Your task to perform on an android device: Turn on the flashlight Image 0: 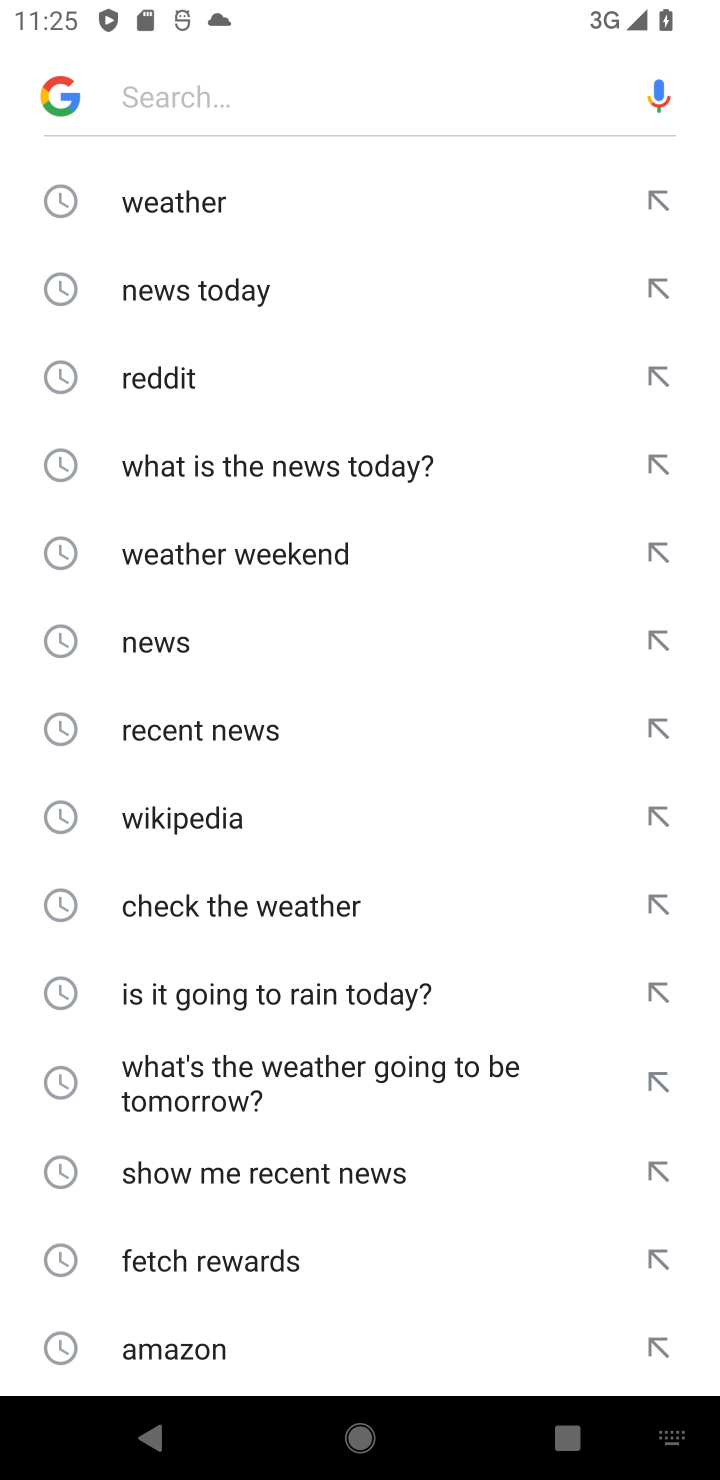
Step 0: press home button
Your task to perform on an android device: Turn on the flashlight Image 1: 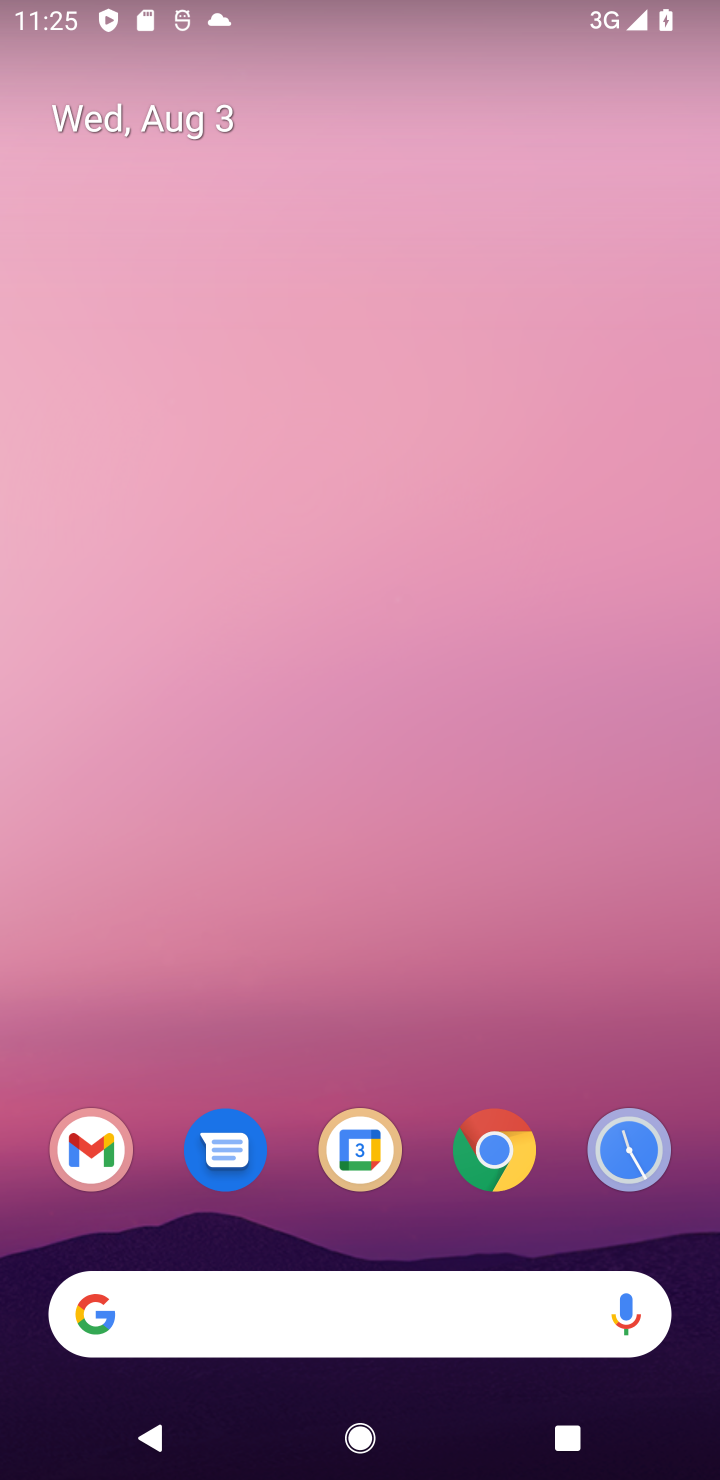
Step 1: drag from (350, 9) to (359, 719)
Your task to perform on an android device: Turn on the flashlight Image 2: 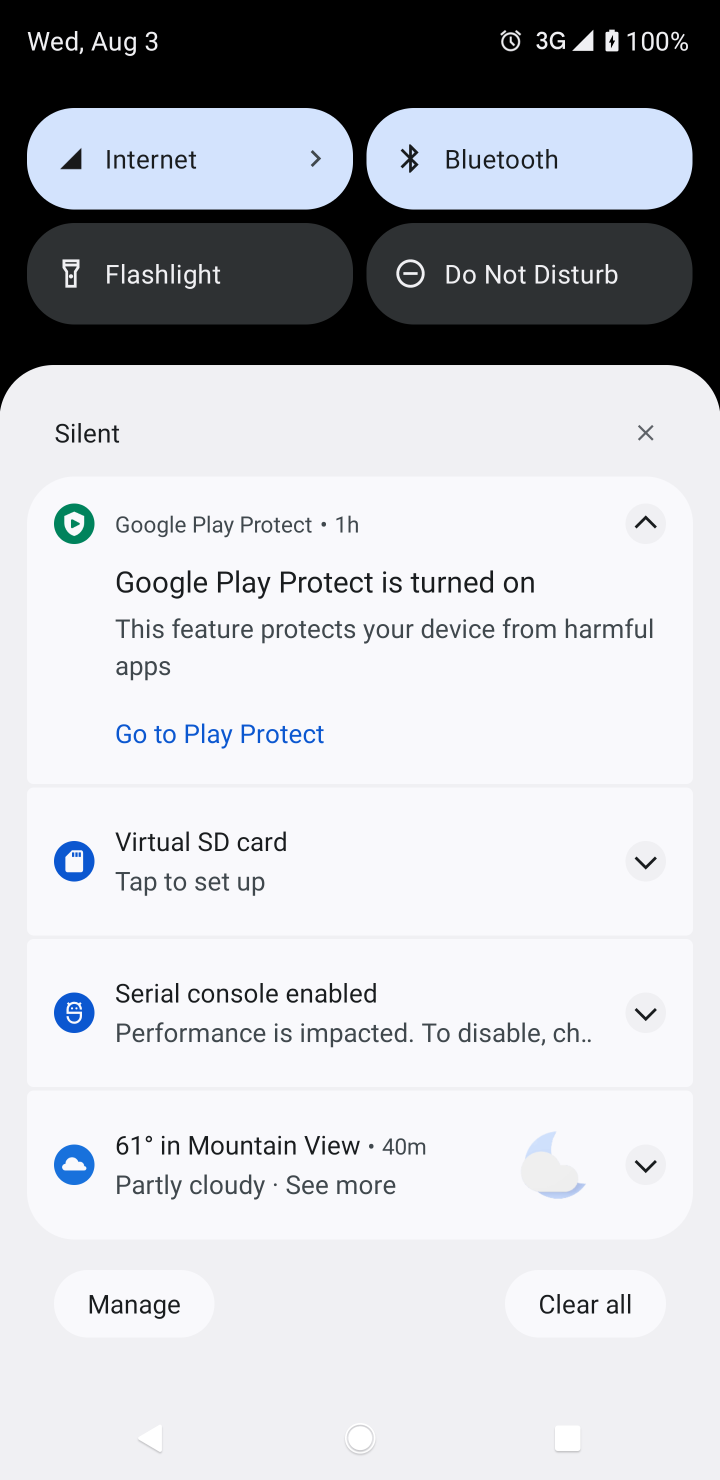
Step 2: drag from (332, 77) to (354, 834)
Your task to perform on an android device: Turn on the flashlight Image 3: 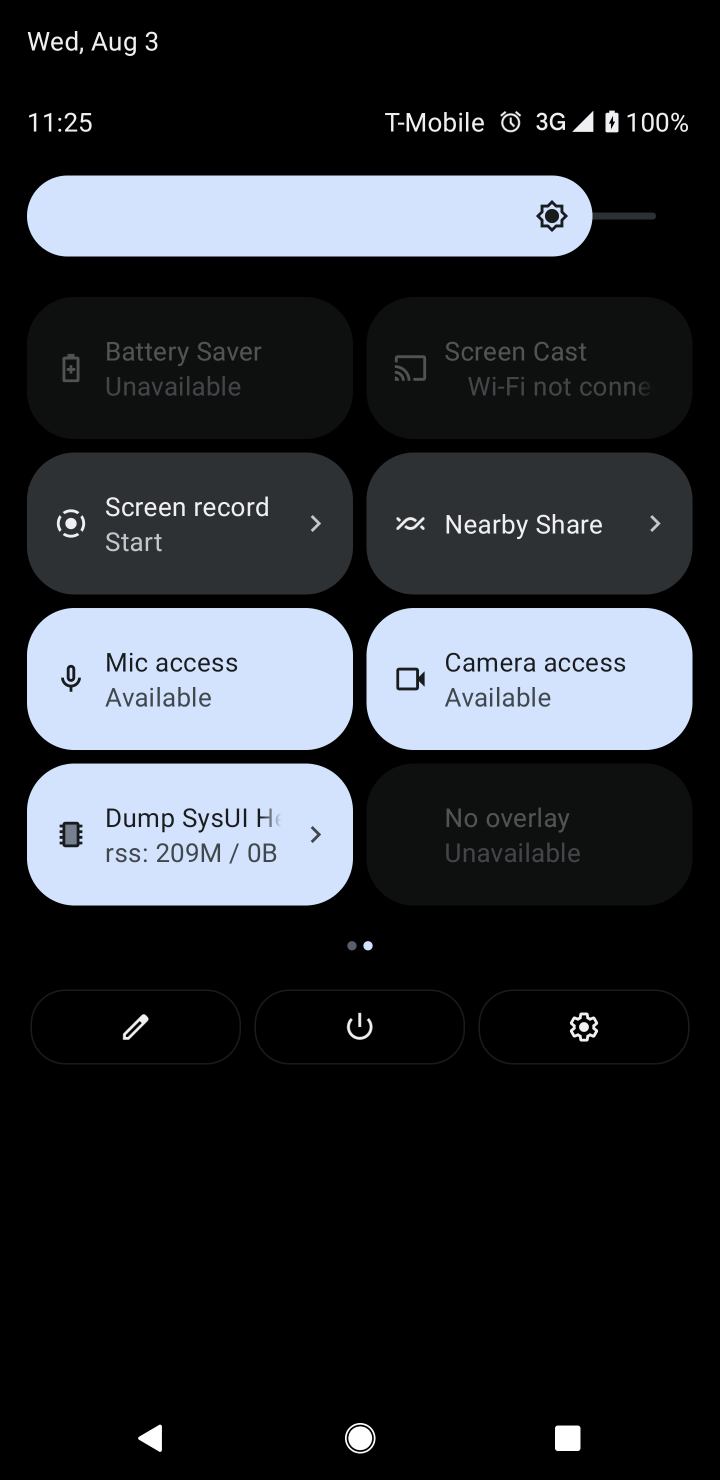
Step 3: click (130, 1023)
Your task to perform on an android device: Turn on the flashlight Image 4: 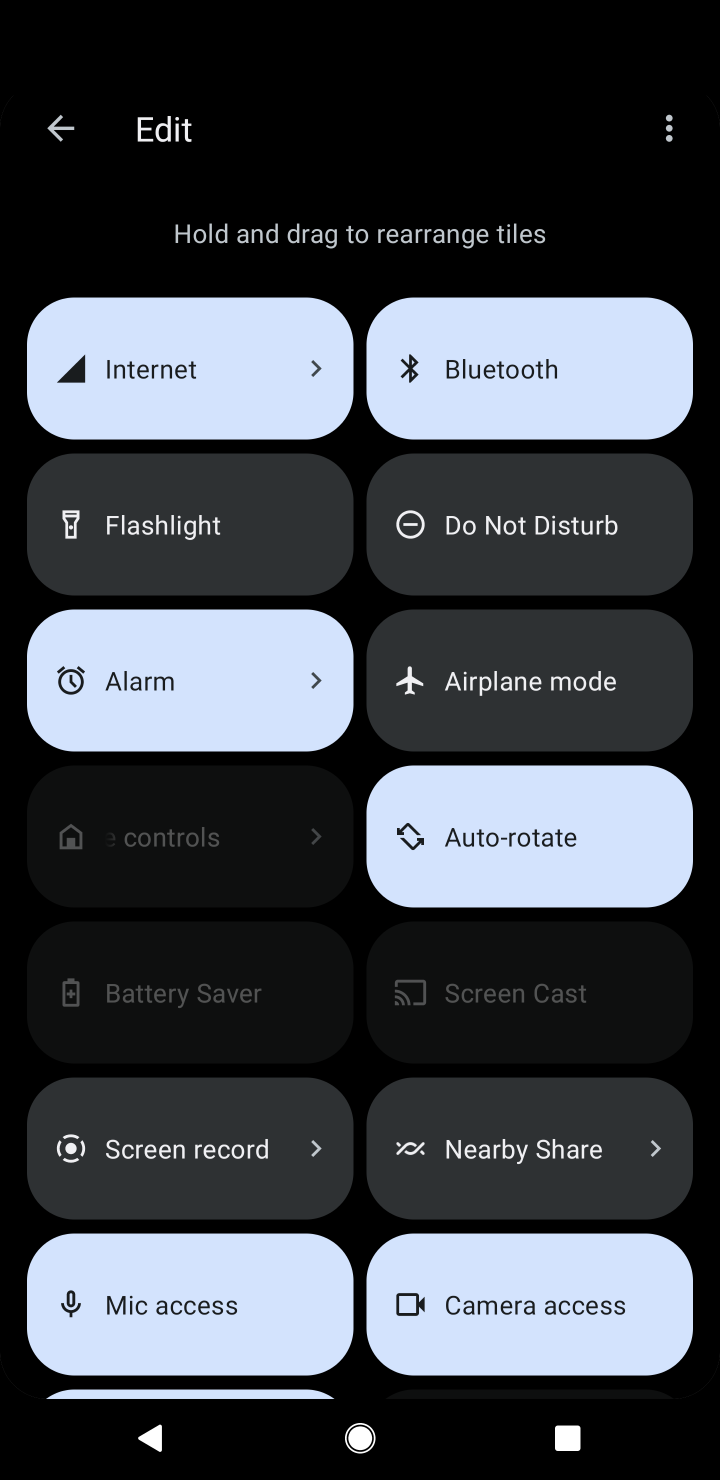
Step 4: click (207, 534)
Your task to perform on an android device: Turn on the flashlight Image 5: 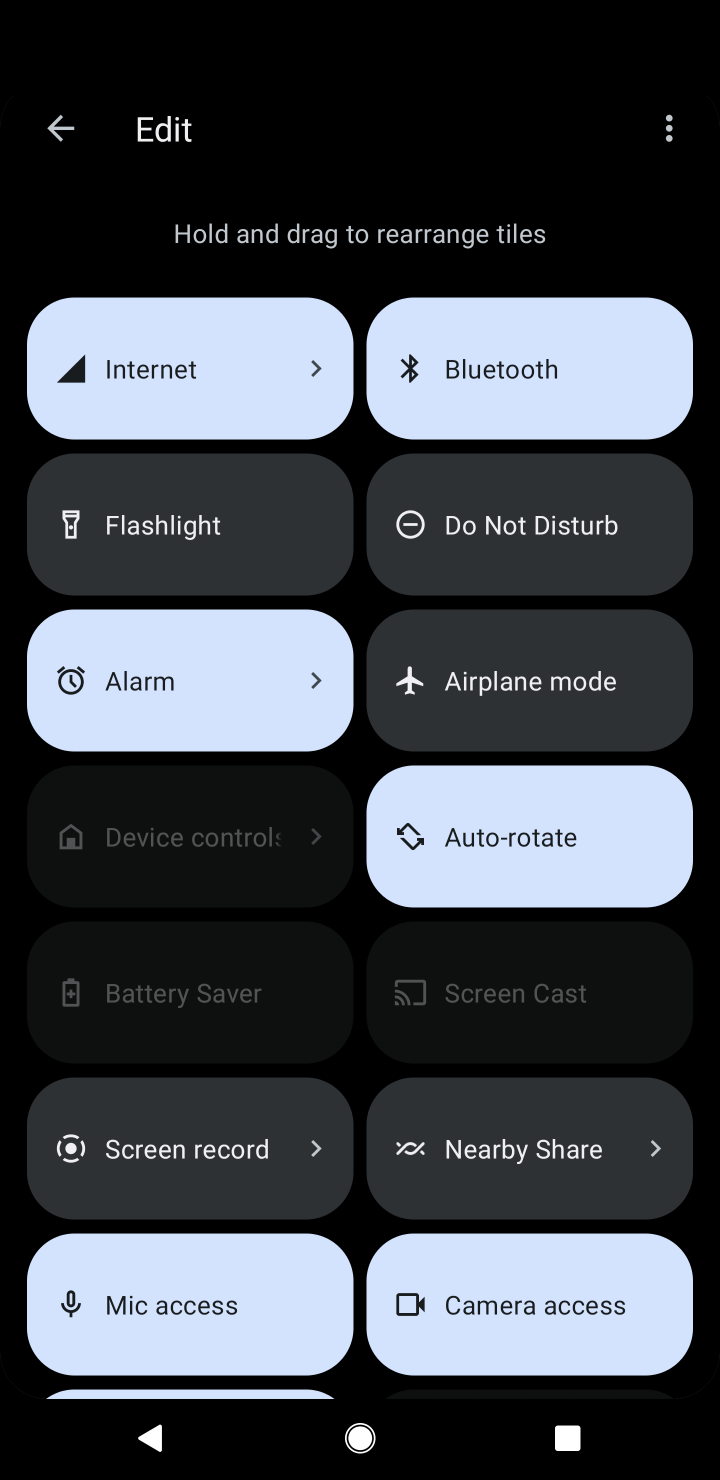
Step 5: task complete